Your task to perform on an android device: choose inbox layout in the gmail app Image 0: 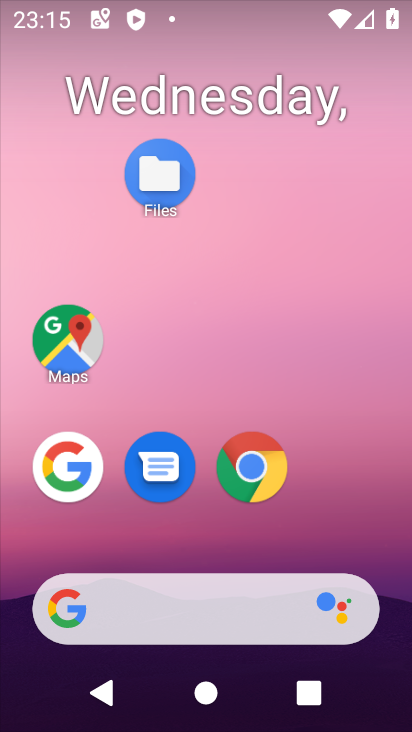
Step 0: drag from (190, 541) to (154, 99)
Your task to perform on an android device: choose inbox layout in the gmail app Image 1: 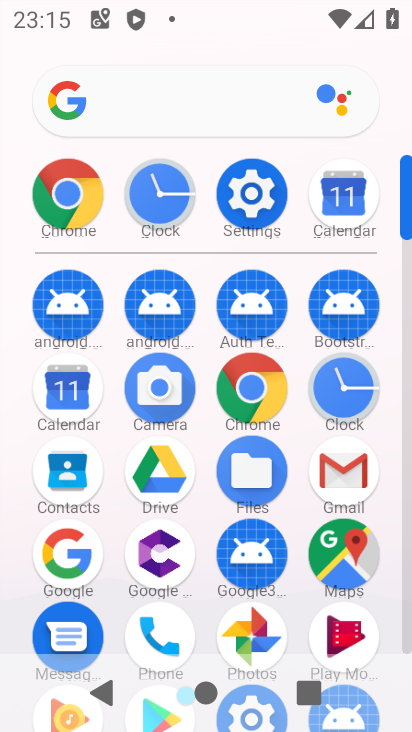
Step 1: click (352, 487)
Your task to perform on an android device: choose inbox layout in the gmail app Image 2: 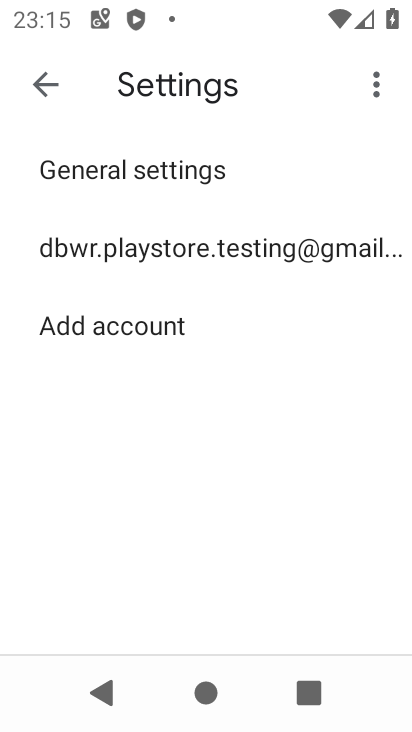
Step 2: click (232, 241)
Your task to perform on an android device: choose inbox layout in the gmail app Image 3: 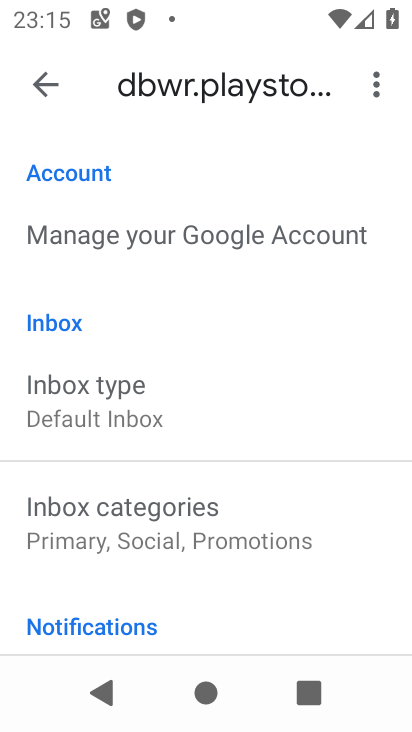
Step 3: click (83, 430)
Your task to perform on an android device: choose inbox layout in the gmail app Image 4: 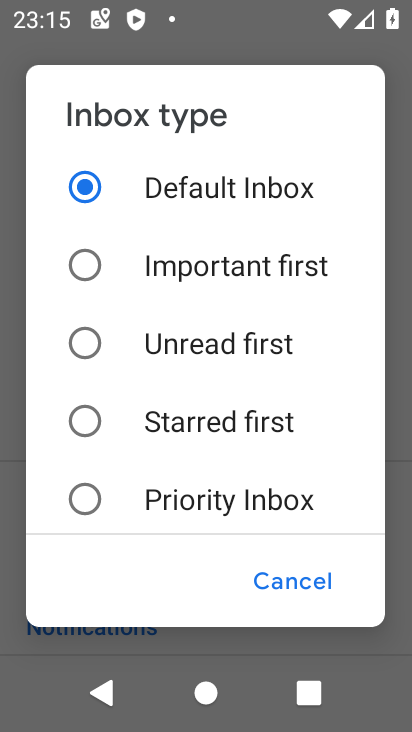
Step 4: click (79, 486)
Your task to perform on an android device: choose inbox layout in the gmail app Image 5: 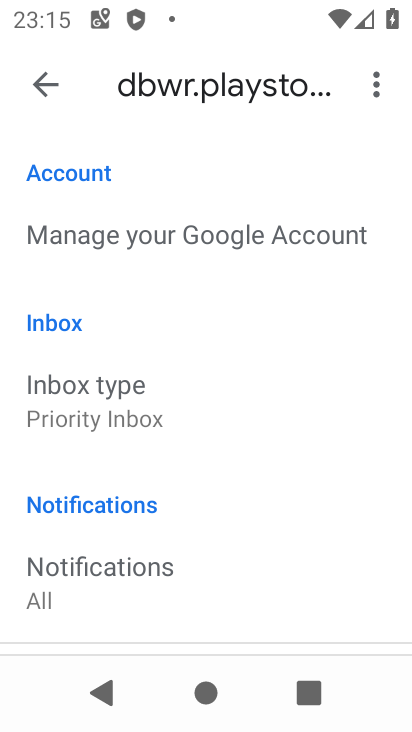
Step 5: click (46, 77)
Your task to perform on an android device: choose inbox layout in the gmail app Image 6: 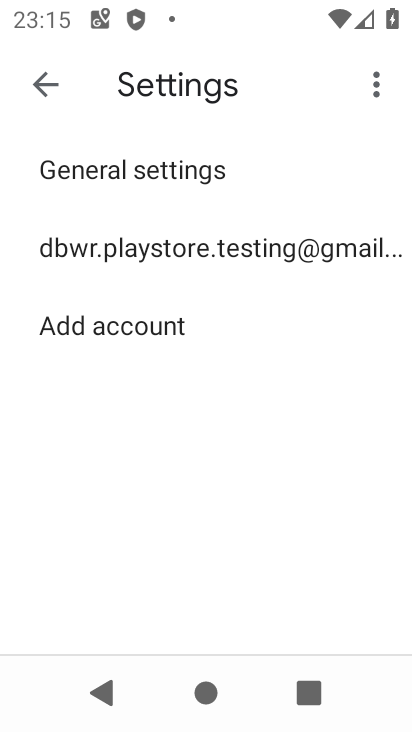
Step 6: click (46, 77)
Your task to perform on an android device: choose inbox layout in the gmail app Image 7: 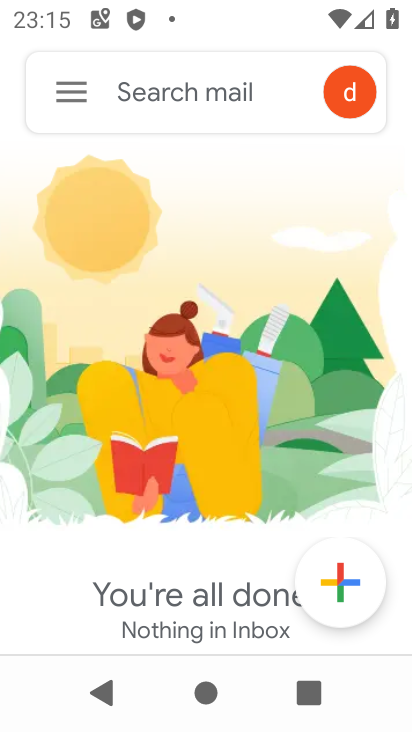
Step 7: task complete